Your task to perform on an android device: Open Google Maps Image 0: 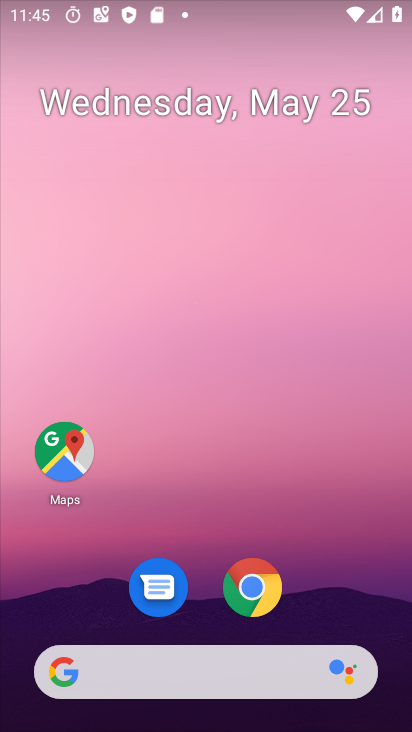
Step 0: drag from (292, 708) to (303, 158)
Your task to perform on an android device: Open Google Maps Image 1: 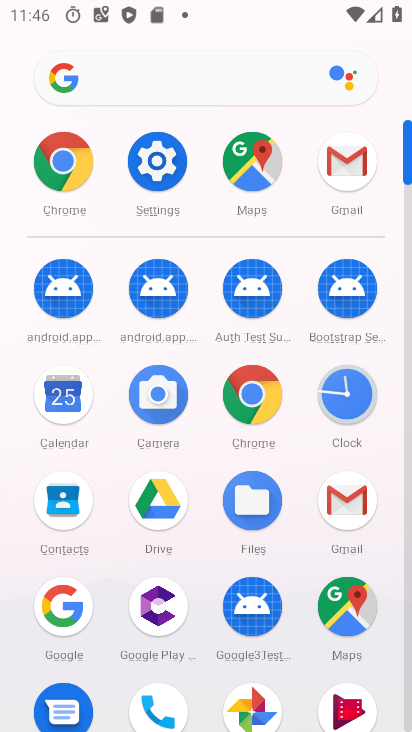
Step 1: click (235, 151)
Your task to perform on an android device: Open Google Maps Image 2: 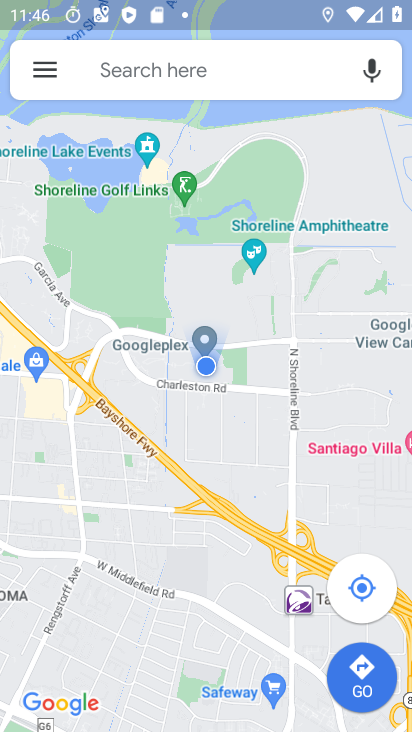
Step 2: click (55, 77)
Your task to perform on an android device: Open Google Maps Image 3: 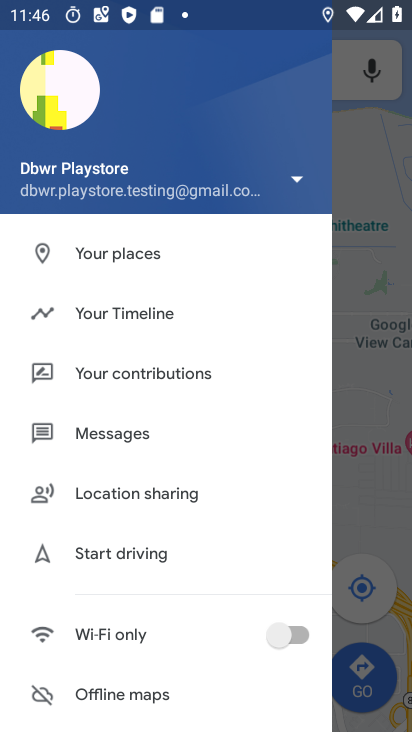
Step 3: click (377, 443)
Your task to perform on an android device: Open Google Maps Image 4: 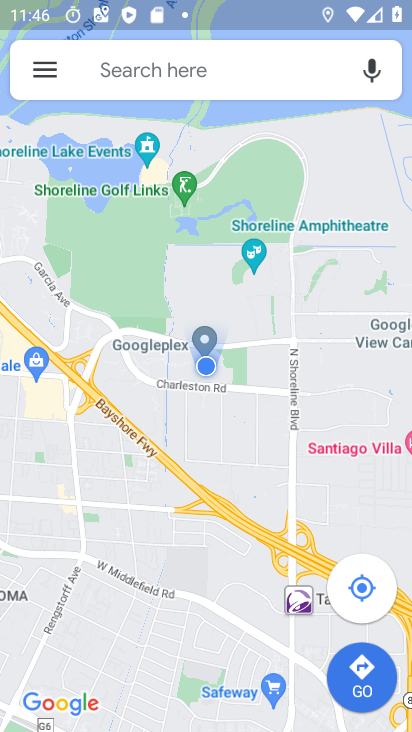
Step 4: click (369, 579)
Your task to perform on an android device: Open Google Maps Image 5: 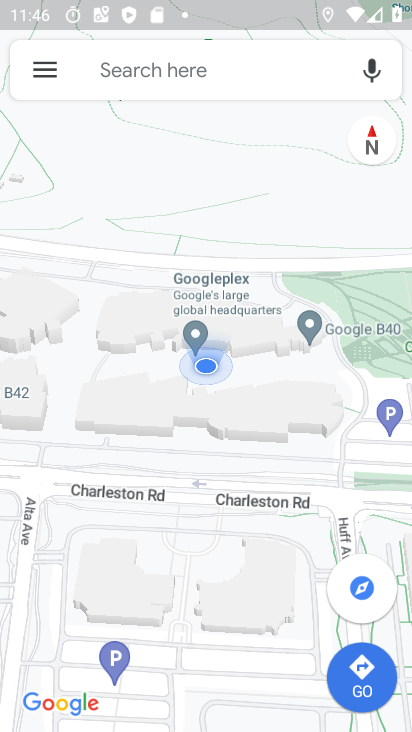
Step 5: click (358, 586)
Your task to perform on an android device: Open Google Maps Image 6: 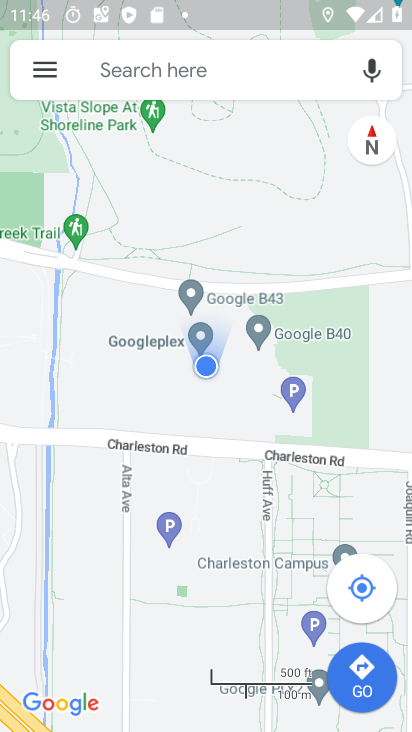
Step 6: task complete